Your task to perform on an android device: Open calendar and show me the third week of next month Image 0: 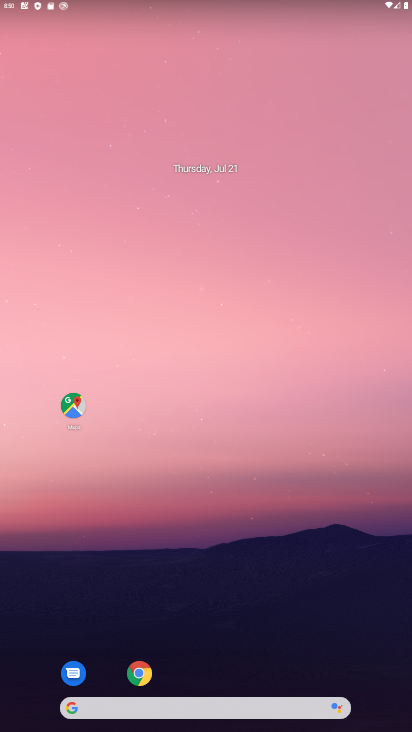
Step 0: drag from (271, 618) to (223, 29)
Your task to perform on an android device: Open calendar and show me the third week of next month Image 1: 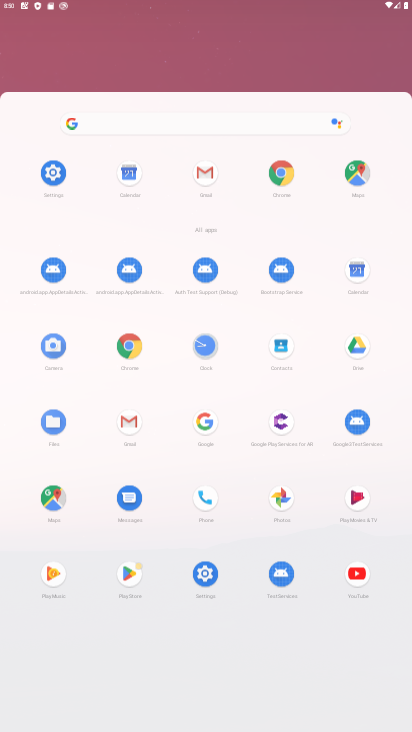
Step 1: click (223, 29)
Your task to perform on an android device: Open calendar and show me the third week of next month Image 2: 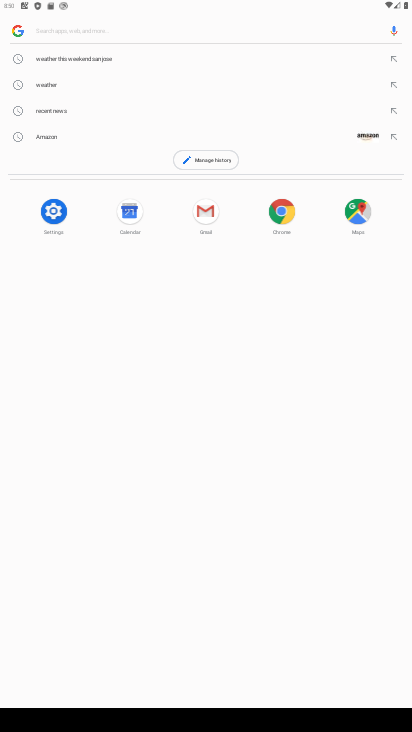
Step 2: press home button
Your task to perform on an android device: Open calendar and show me the third week of next month Image 3: 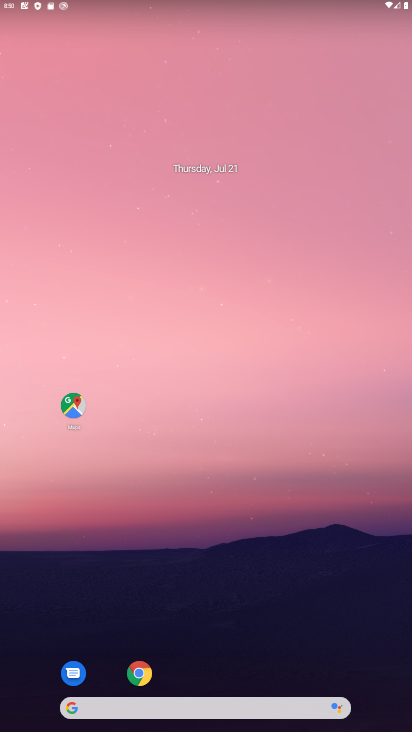
Step 3: drag from (268, 575) to (217, 88)
Your task to perform on an android device: Open calendar and show me the third week of next month Image 4: 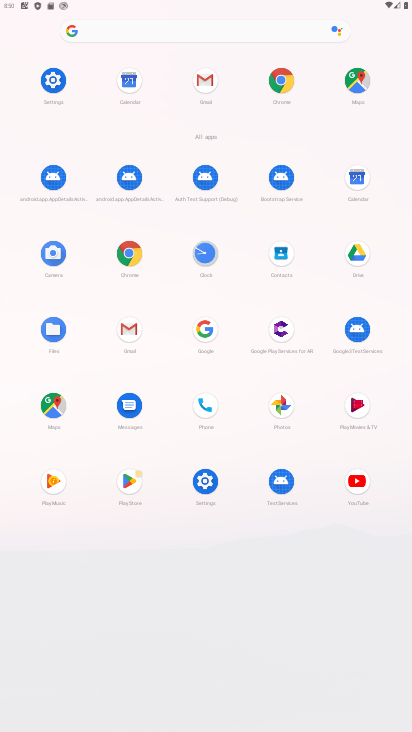
Step 4: click (355, 186)
Your task to perform on an android device: Open calendar and show me the third week of next month Image 5: 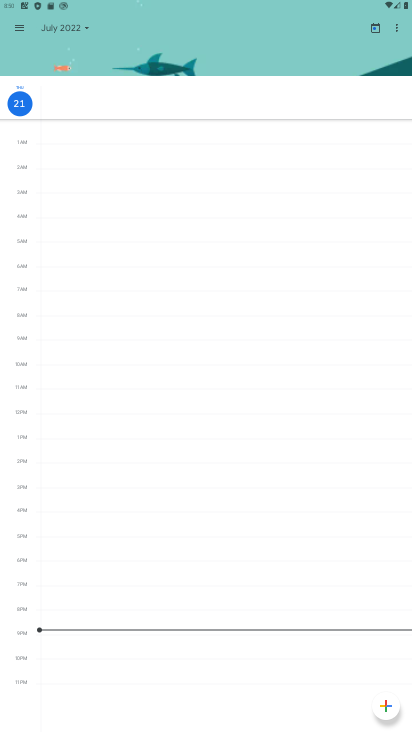
Step 5: click (17, 34)
Your task to perform on an android device: Open calendar and show me the third week of next month Image 6: 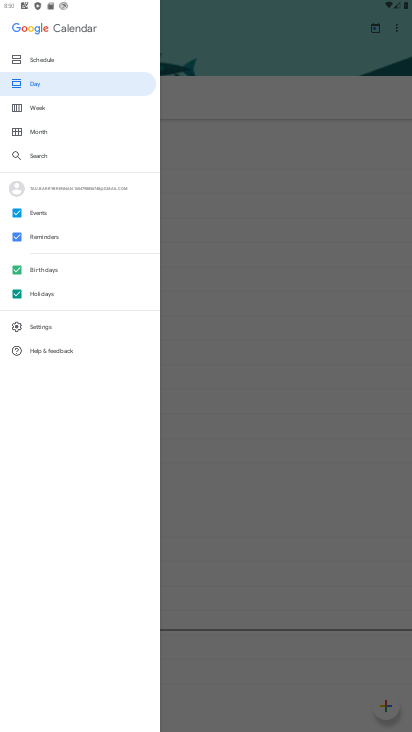
Step 6: click (52, 106)
Your task to perform on an android device: Open calendar and show me the third week of next month Image 7: 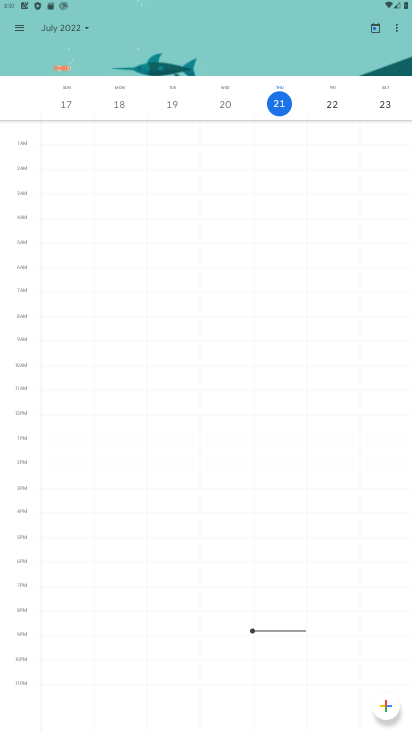
Step 7: click (59, 26)
Your task to perform on an android device: Open calendar and show me the third week of next month Image 8: 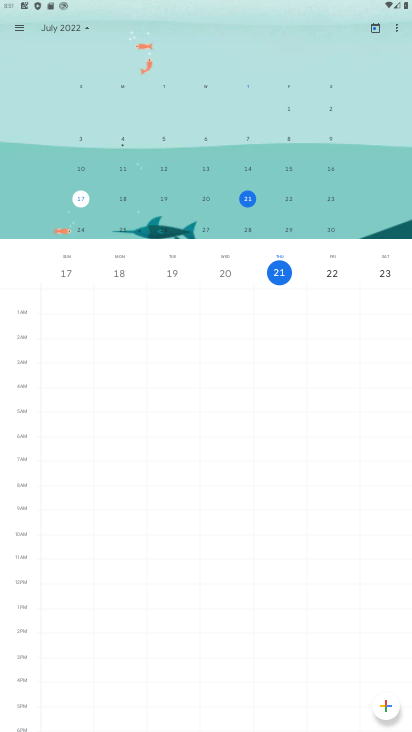
Step 8: drag from (296, 181) to (1, 196)
Your task to perform on an android device: Open calendar and show me the third week of next month Image 9: 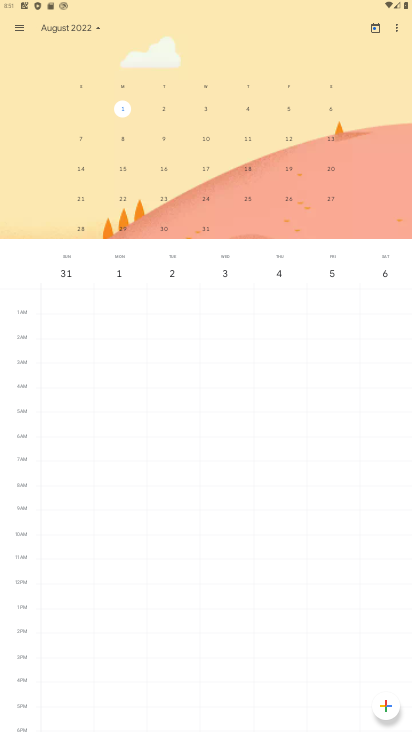
Step 9: click (162, 167)
Your task to perform on an android device: Open calendar and show me the third week of next month Image 10: 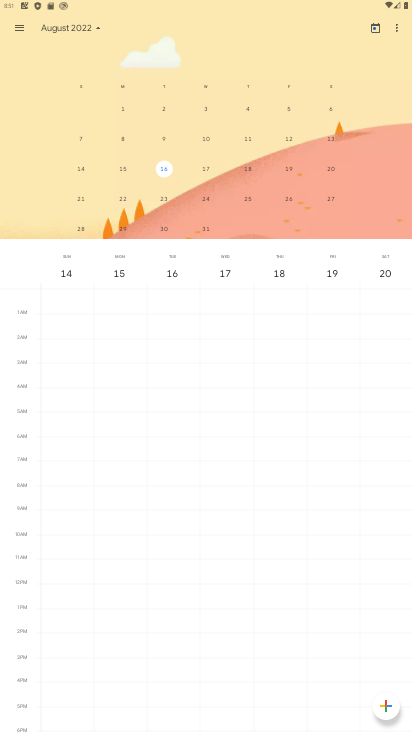
Step 10: task complete